Your task to perform on an android device: Add dell xps to the cart on bestbuy.com Image 0: 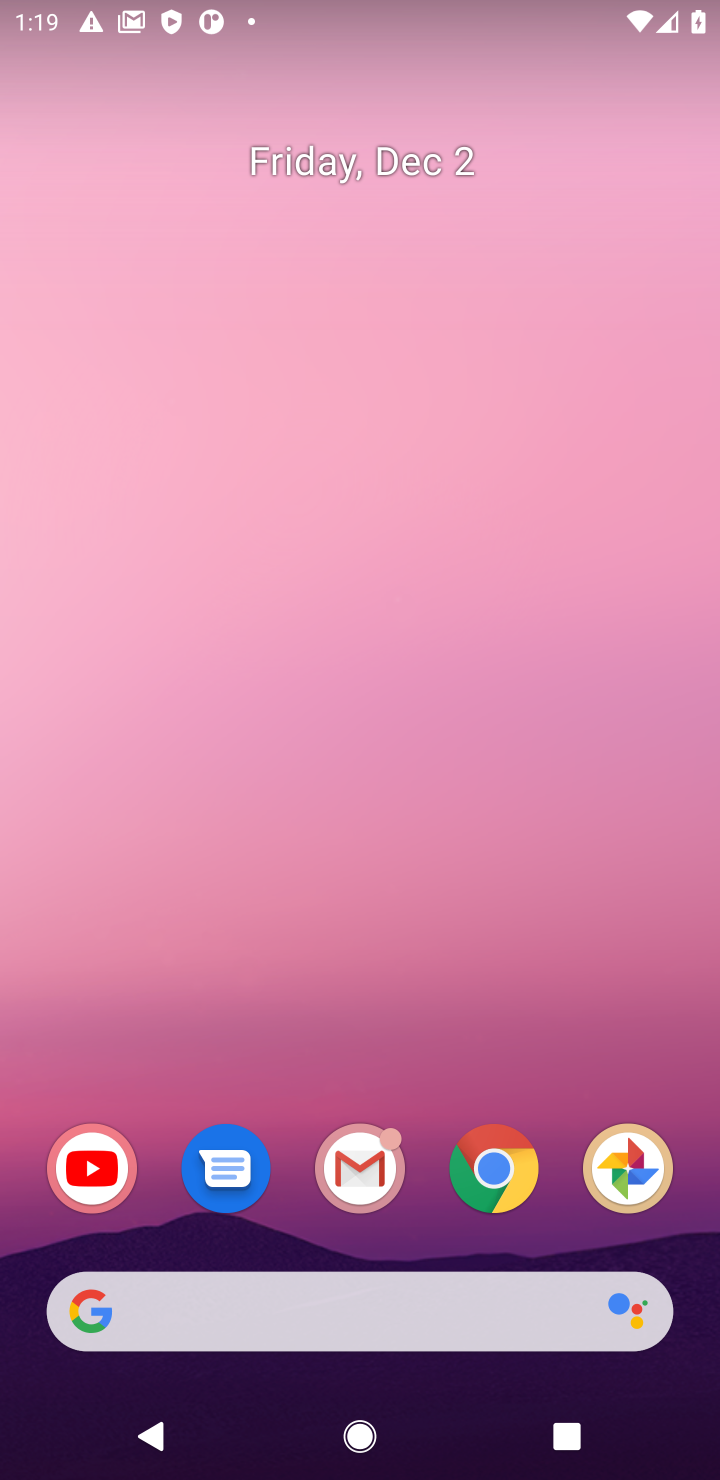
Step 0: click (505, 1176)
Your task to perform on an android device: Add dell xps to the cart on bestbuy.com Image 1: 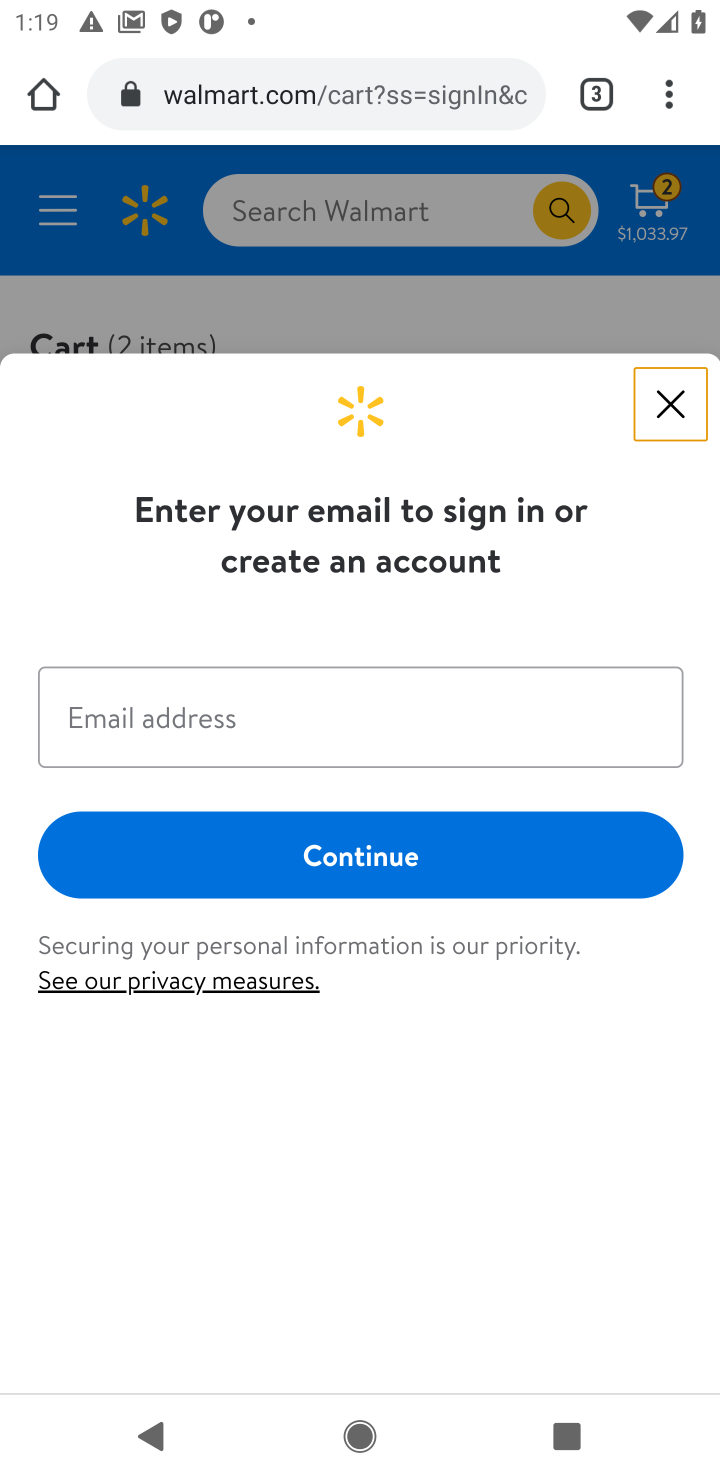
Step 1: click (310, 90)
Your task to perform on an android device: Add dell xps to the cart on bestbuy.com Image 2: 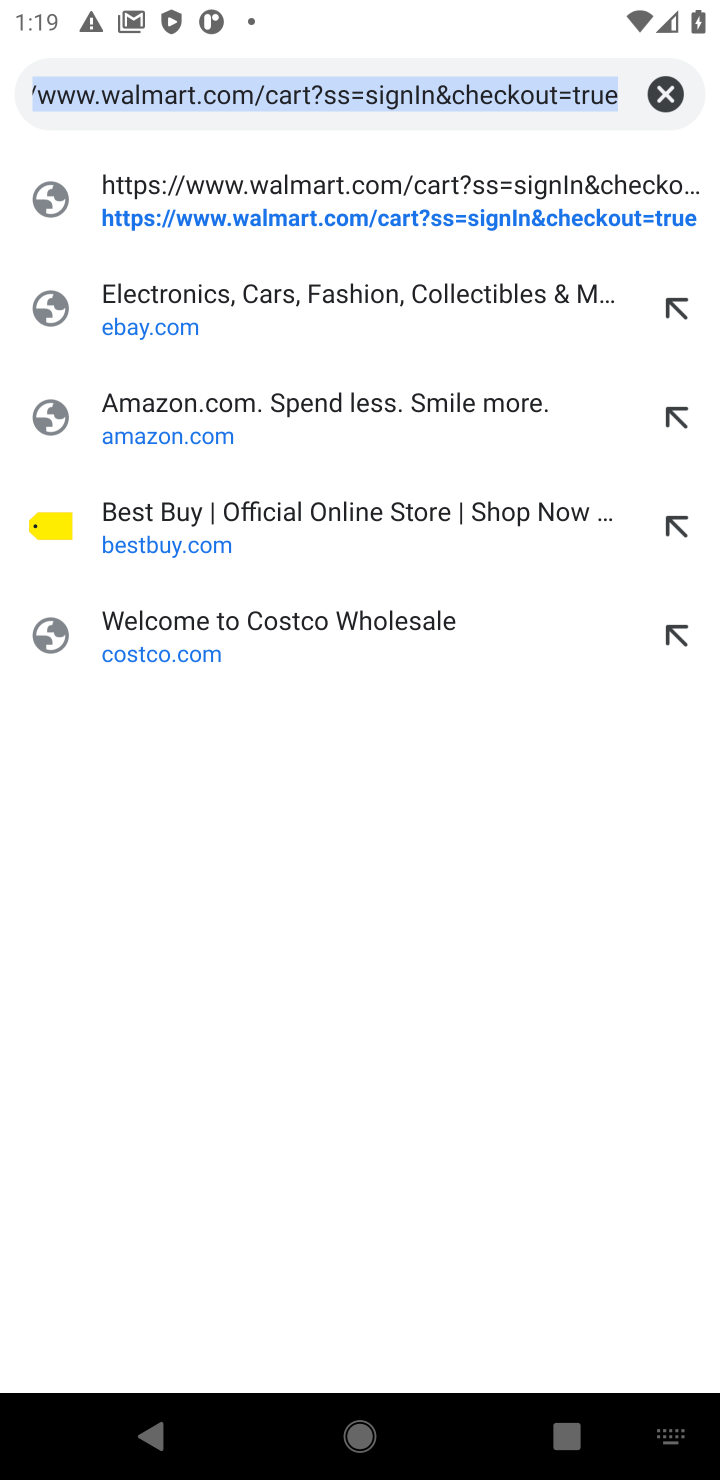
Step 2: click (138, 530)
Your task to perform on an android device: Add dell xps to the cart on bestbuy.com Image 3: 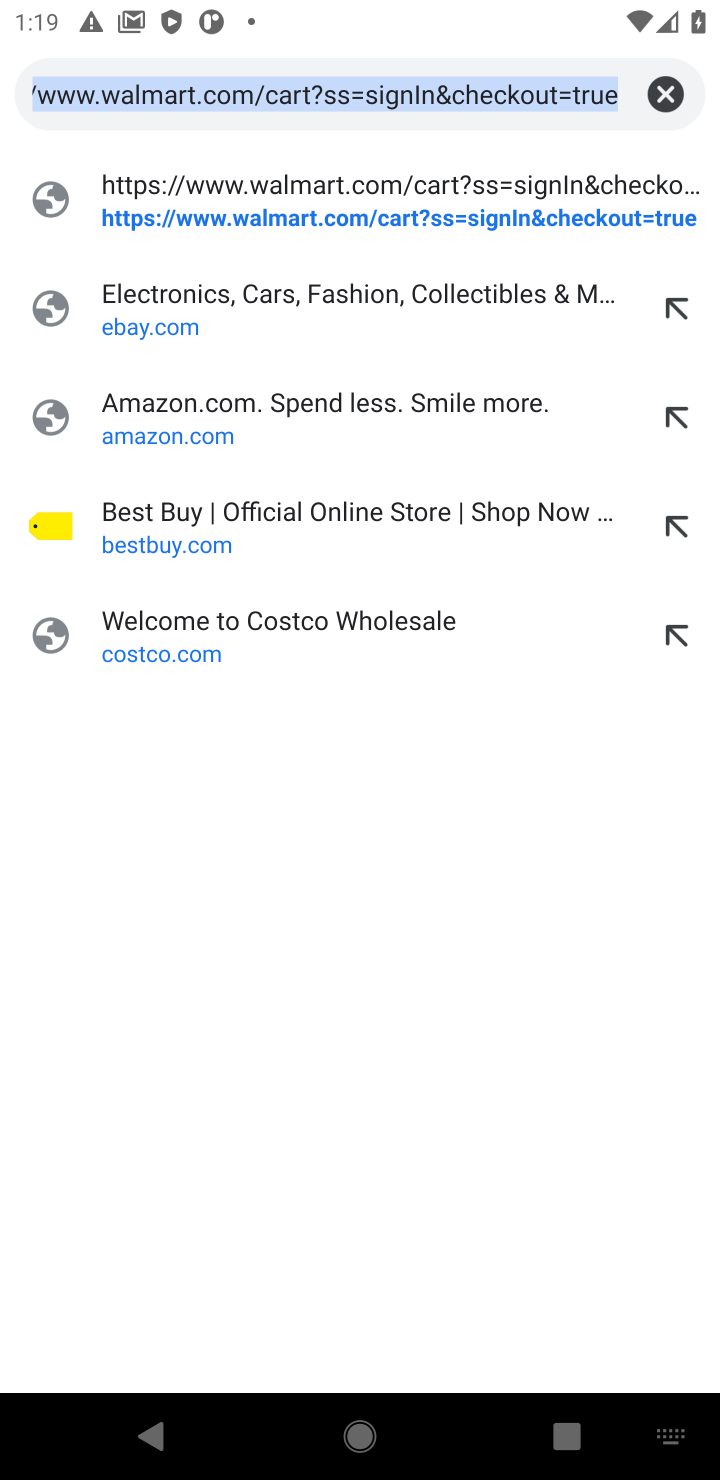
Step 3: click (174, 514)
Your task to perform on an android device: Add dell xps to the cart on bestbuy.com Image 4: 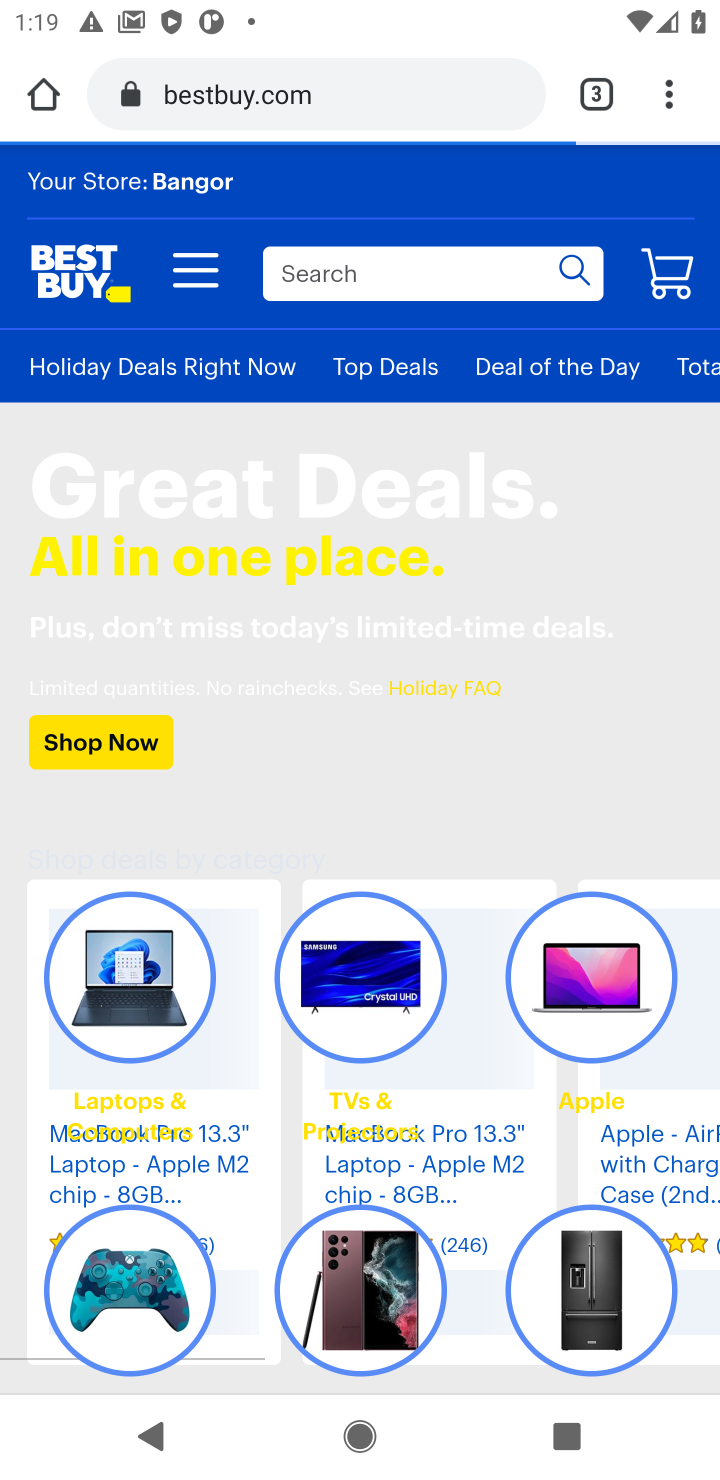
Step 4: click (330, 278)
Your task to perform on an android device: Add dell xps to the cart on bestbuy.com Image 5: 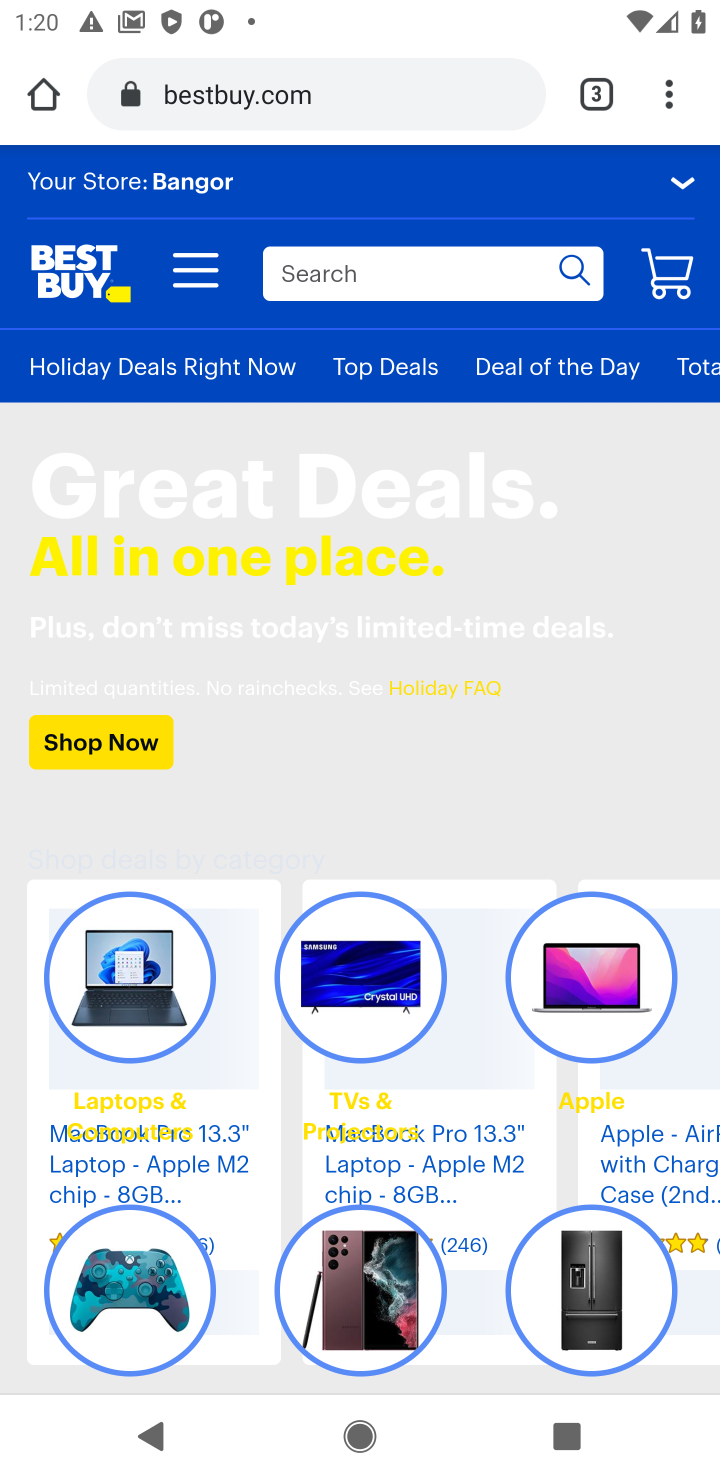
Step 5: type "dell xps"
Your task to perform on an android device: Add dell xps to the cart on bestbuy.com Image 6: 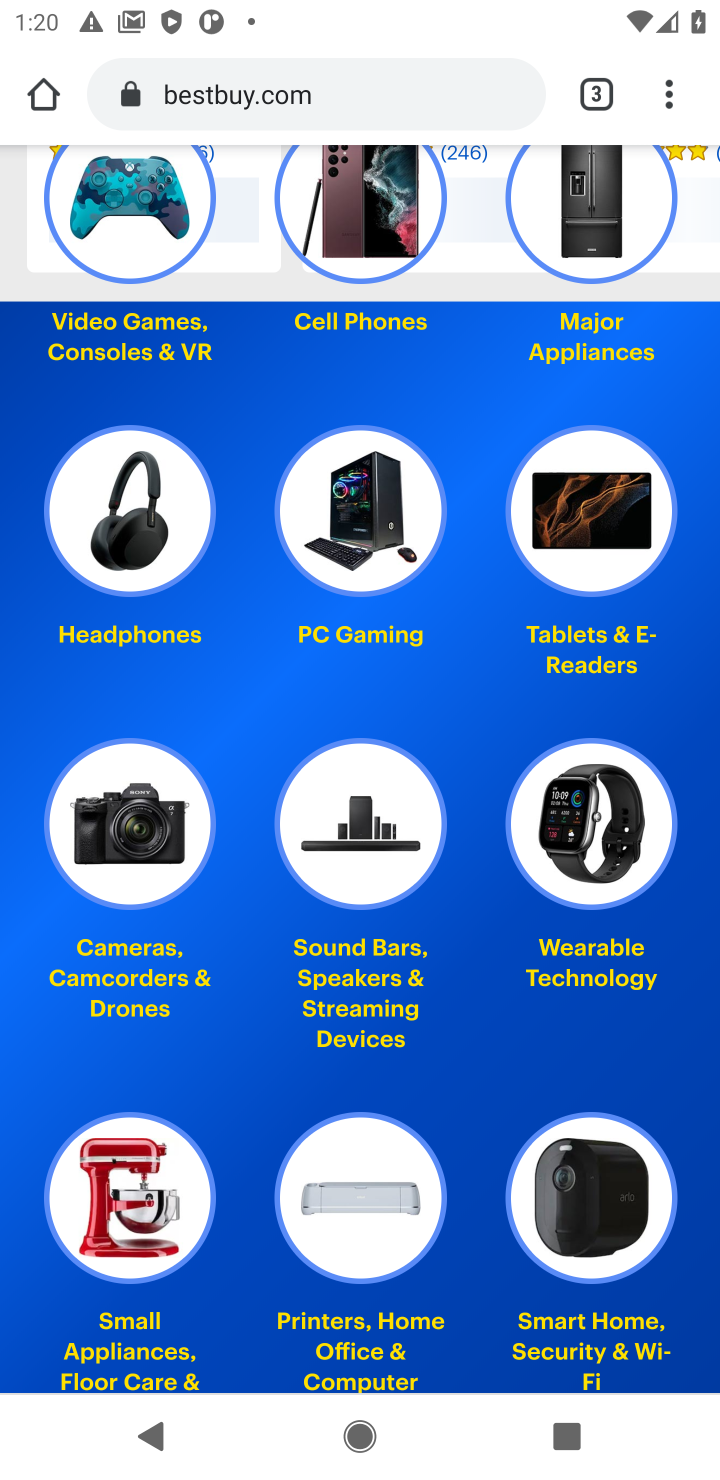
Step 6: drag from (318, 270) to (278, 922)
Your task to perform on an android device: Add dell xps to the cart on bestbuy.com Image 7: 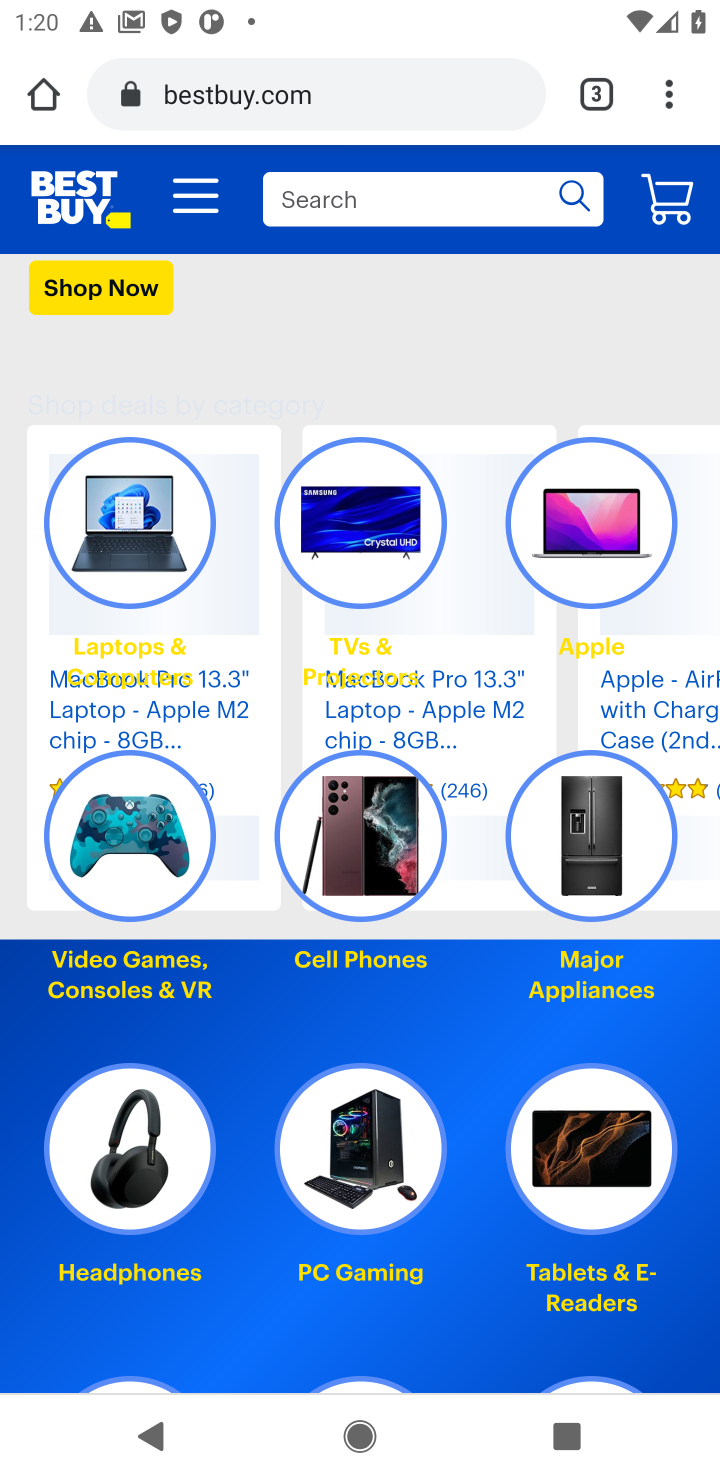
Step 7: click (320, 198)
Your task to perform on an android device: Add dell xps to the cart on bestbuy.com Image 8: 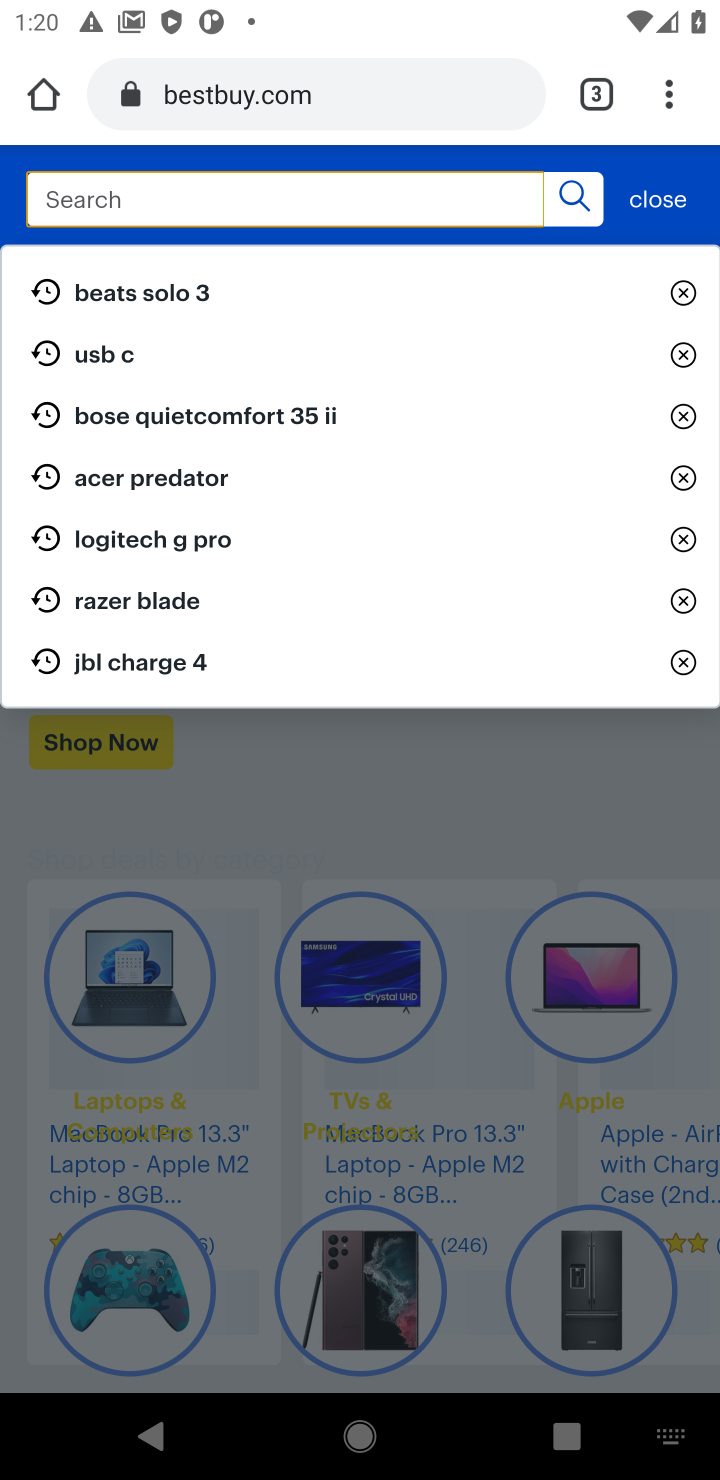
Step 8: type "dell xps"
Your task to perform on an android device: Add dell xps to the cart on bestbuy.com Image 9: 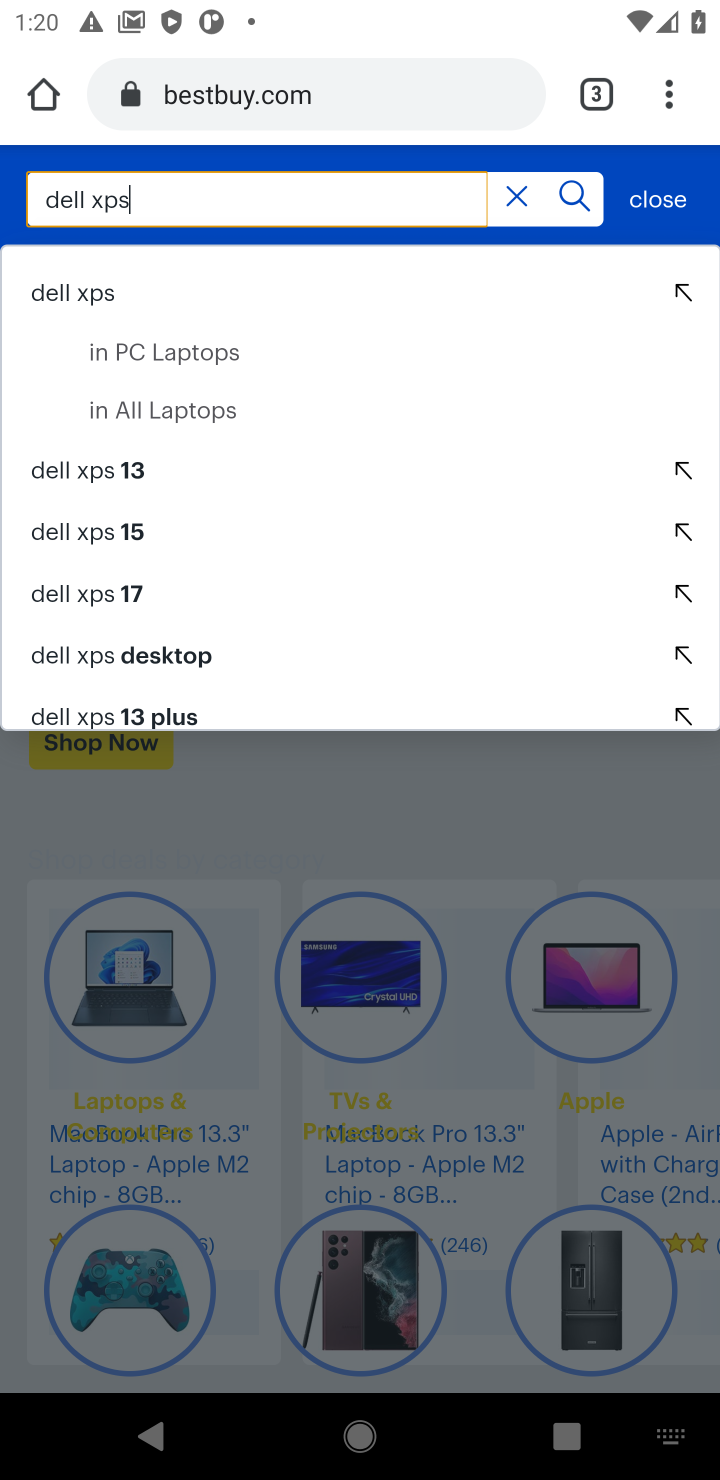
Step 9: click (84, 293)
Your task to perform on an android device: Add dell xps to the cart on bestbuy.com Image 10: 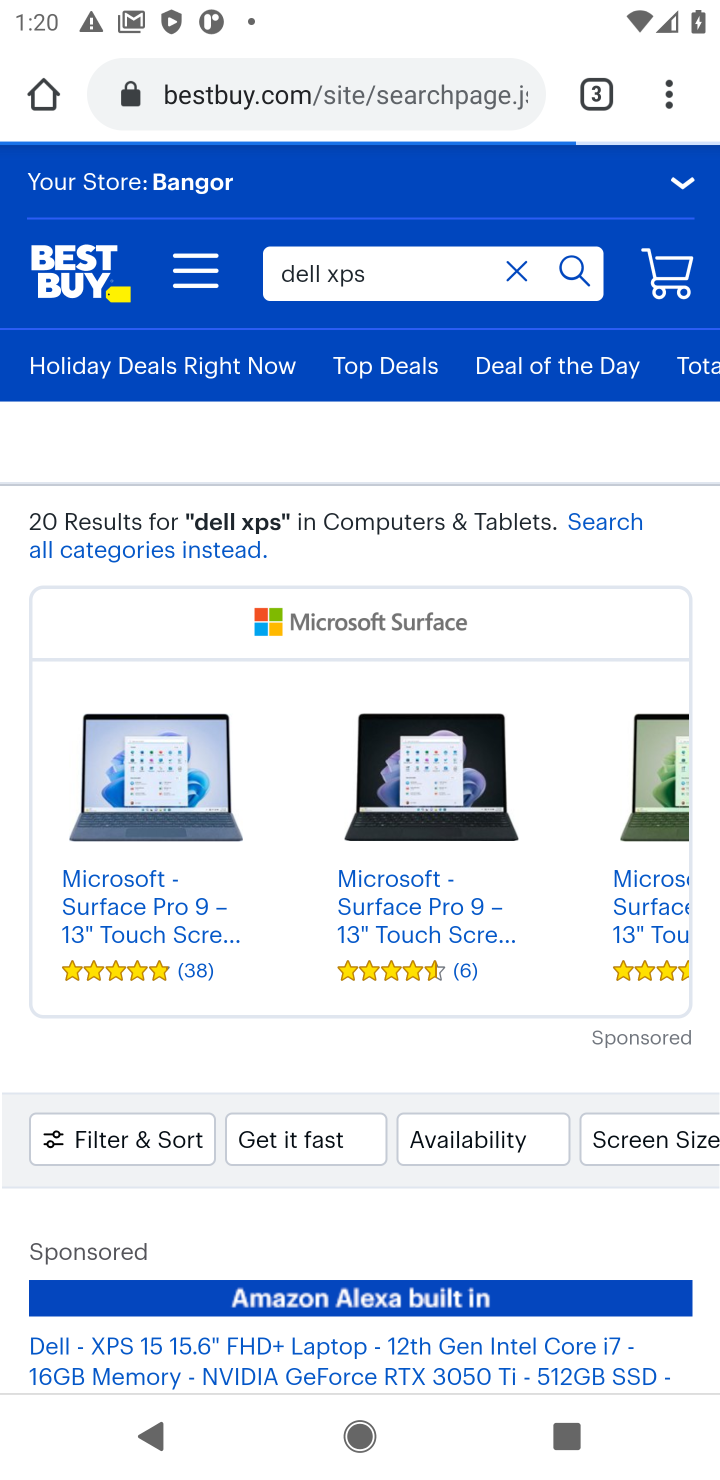
Step 10: drag from (300, 1037) to (280, 467)
Your task to perform on an android device: Add dell xps to the cart on bestbuy.com Image 11: 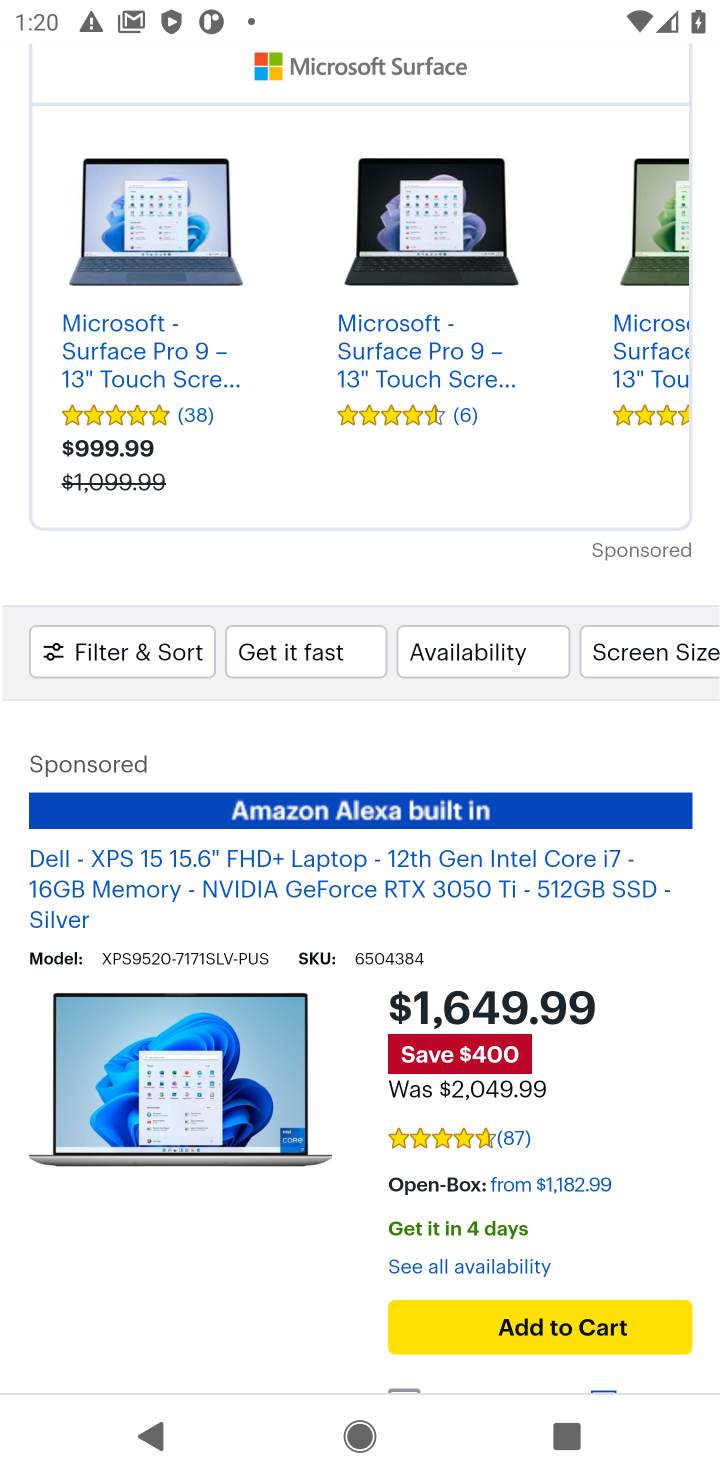
Step 11: drag from (323, 937) to (349, 633)
Your task to perform on an android device: Add dell xps to the cart on bestbuy.com Image 12: 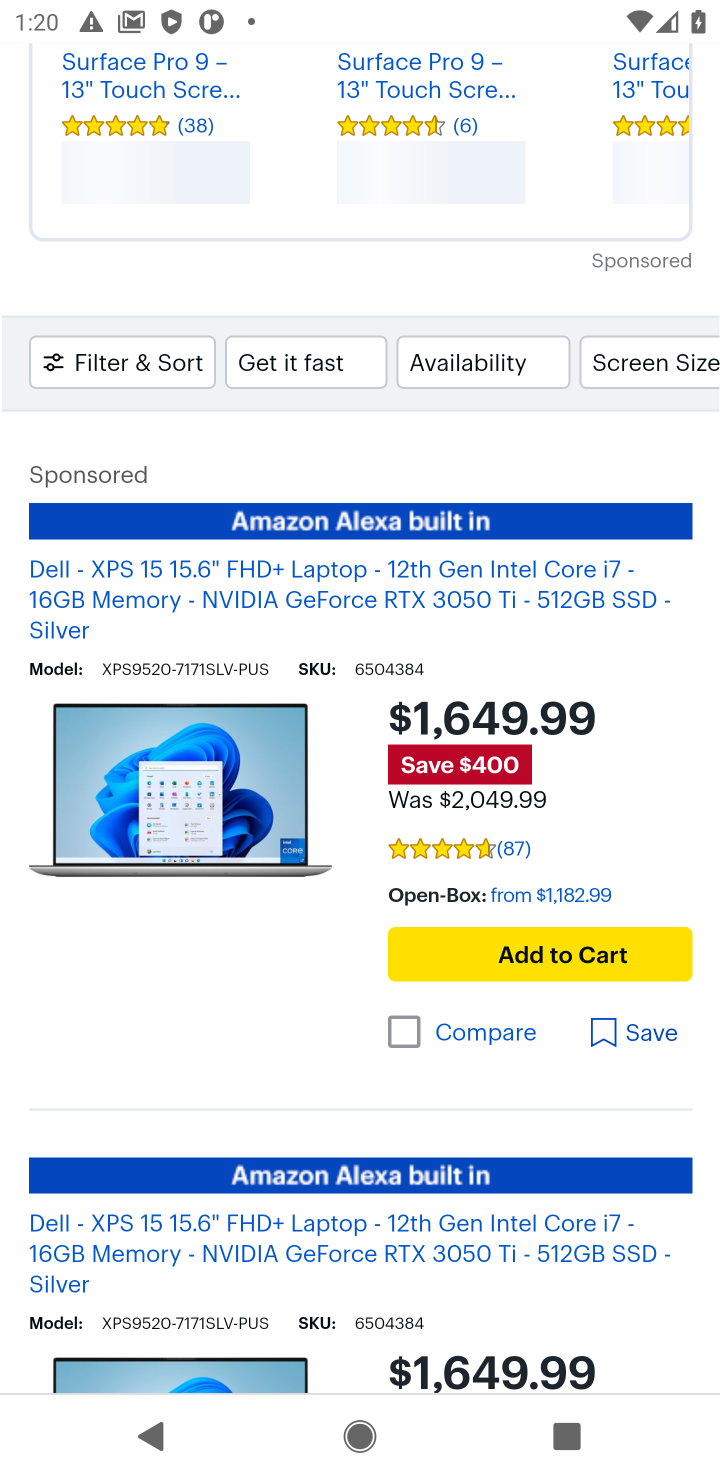
Step 12: click (545, 956)
Your task to perform on an android device: Add dell xps to the cart on bestbuy.com Image 13: 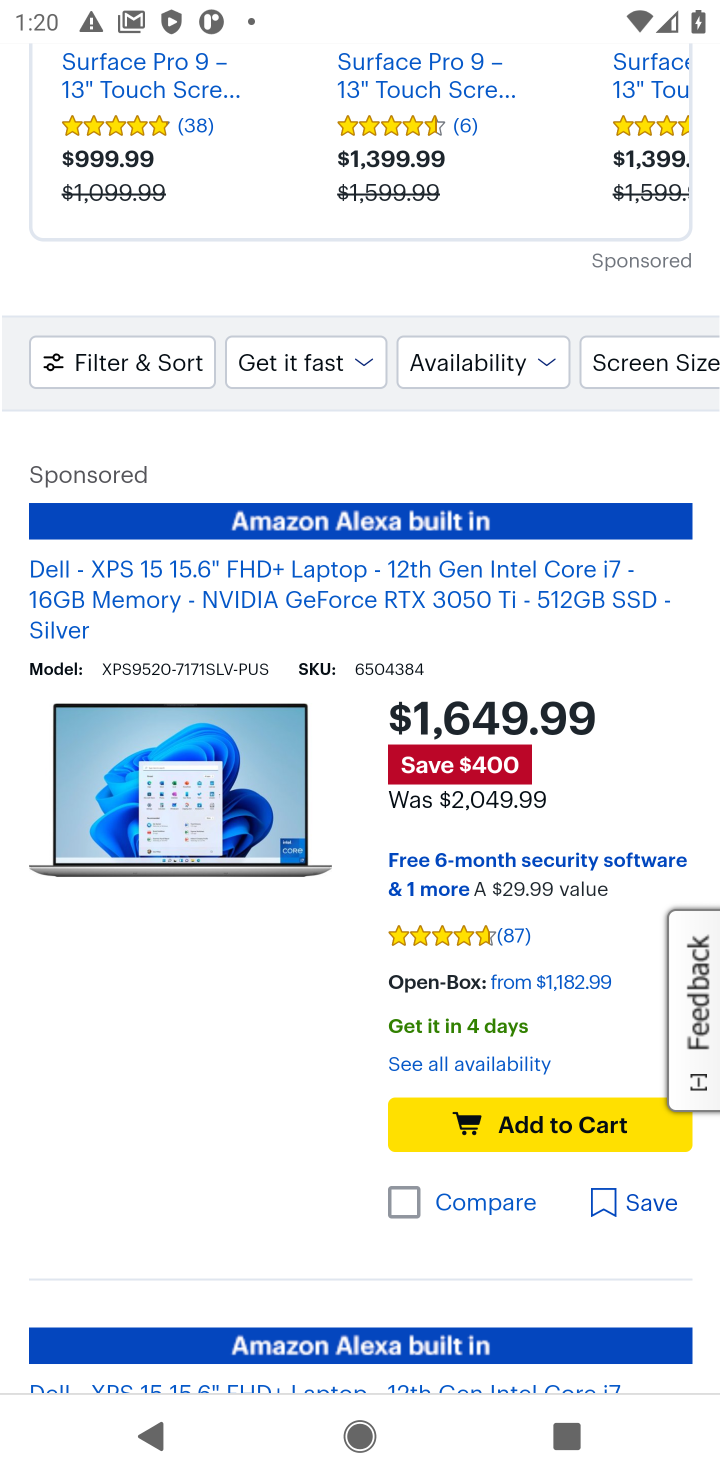
Step 13: click (510, 1120)
Your task to perform on an android device: Add dell xps to the cart on bestbuy.com Image 14: 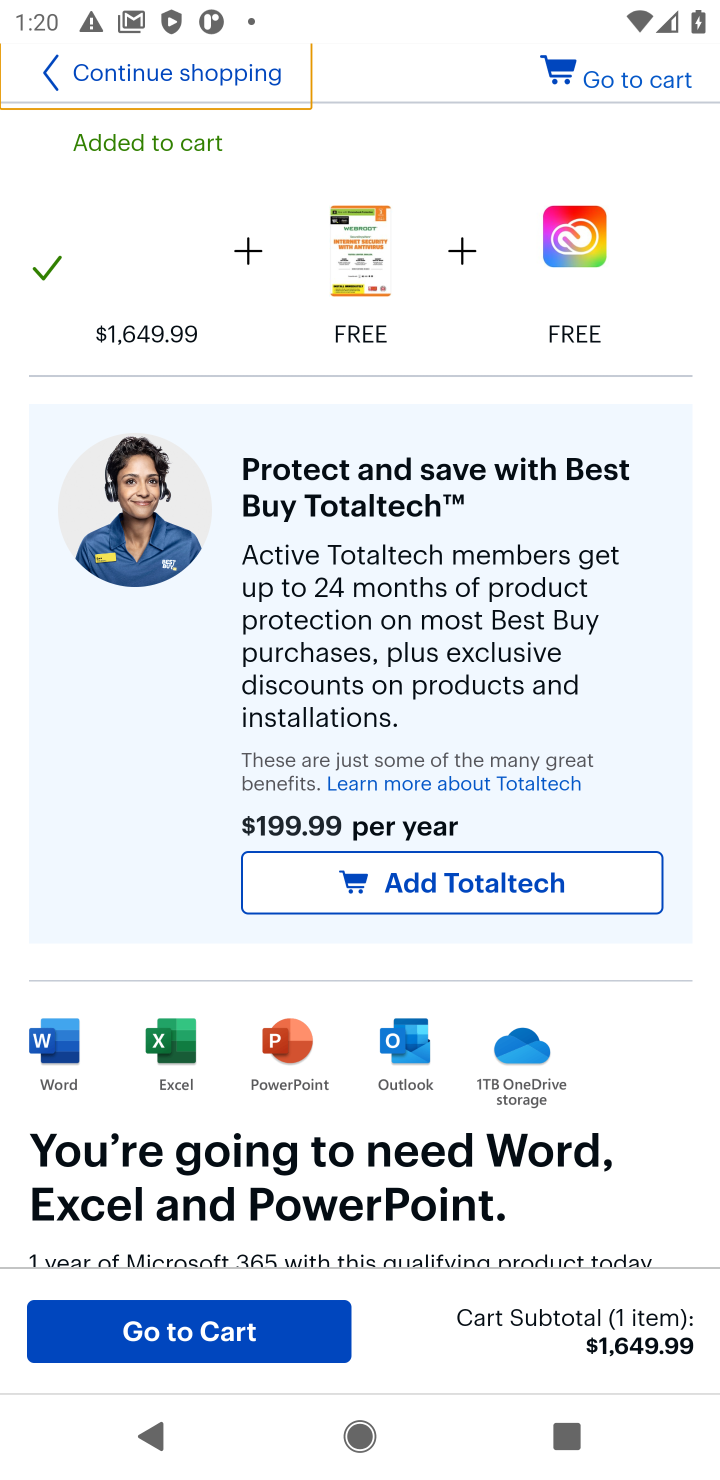
Step 14: task complete